Your task to perform on an android device: View the shopping cart on newegg.com. Add "asus zenbook" to the cart on newegg.com, then select checkout. Image 0: 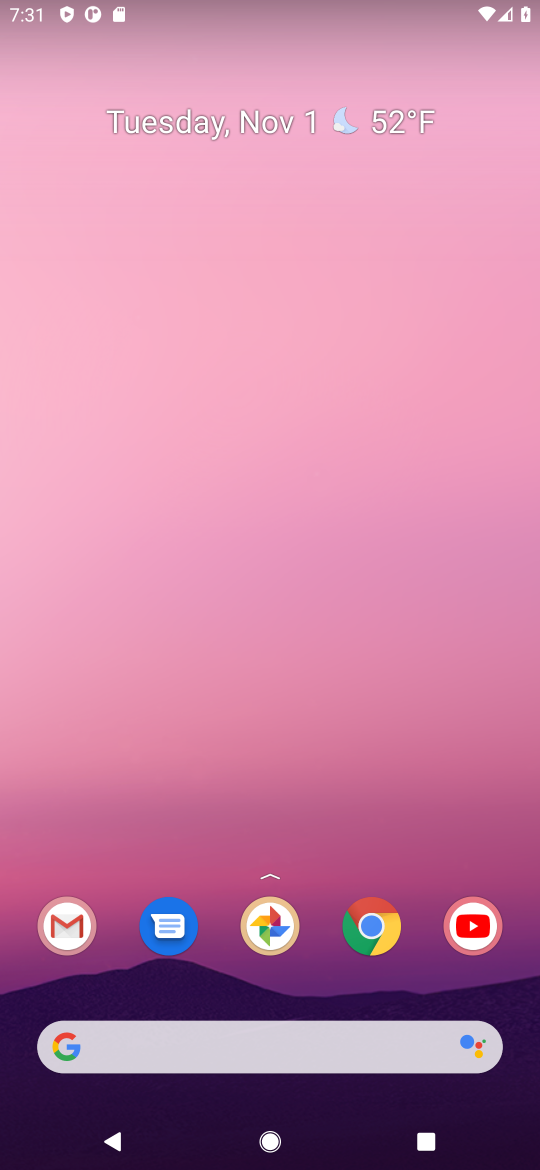
Step 0: click (366, 933)
Your task to perform on an android device: View the shopping cart on newegg.com. Add "asus zenbook" to the cart on newegg.com, then select checkout. Image 1: 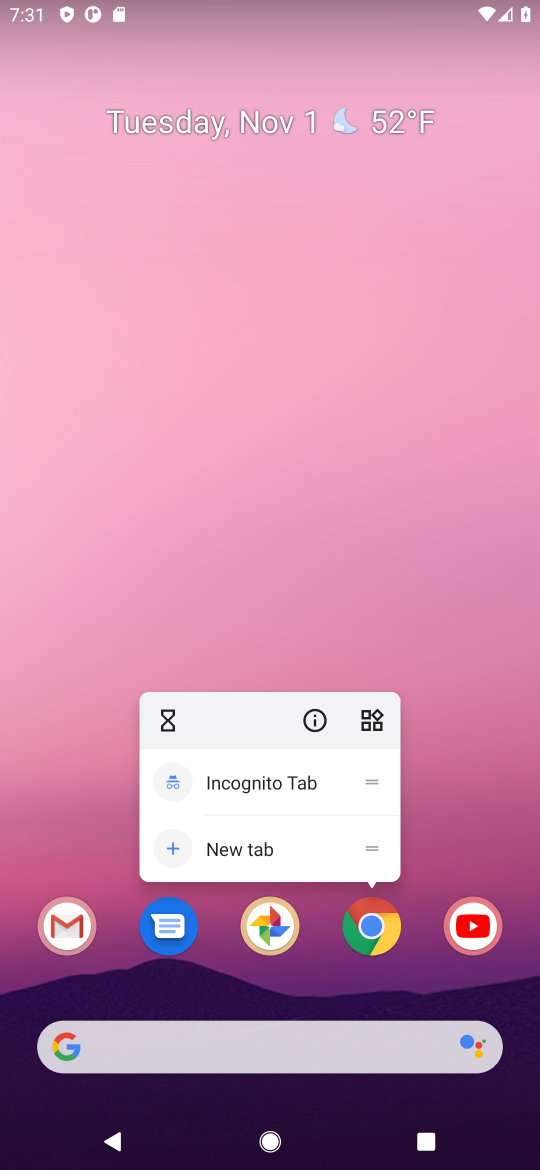
Step 1: click (366, 933)
Your task to perform on an android device: View the shopping cart on newegg.com. Add "asus zenbook" to the cart on newegg.com, then select checkout. Image 2: 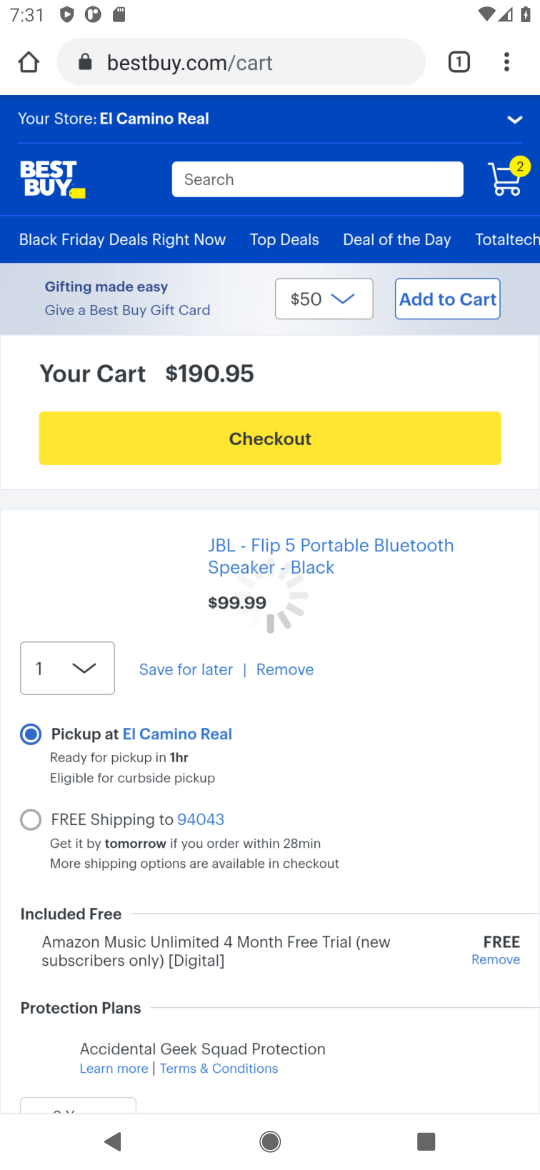
Step 2: click (366, 933)
Your task to perform on an android device: View the shopping cart on newegg.com. Add "asus zenbook" to the cart on newegg.com, then select checkout. Image 3: 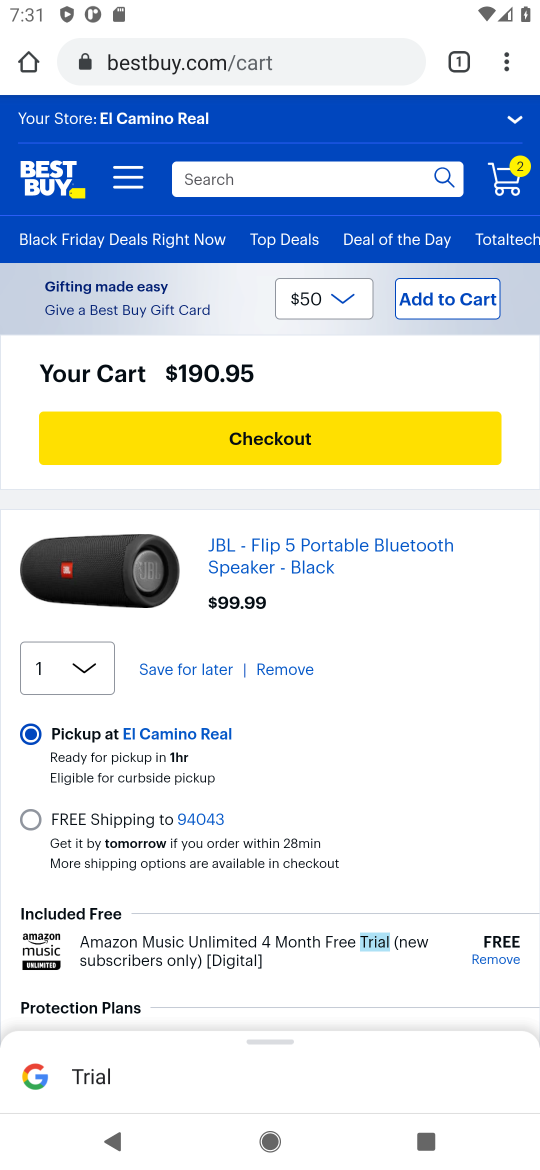
Step 3: click (120, 76)
Your task to perform on an android device: View the shopping cart on newegg.com. Add "asus zenbook" to the cart on newegg.com, then select checkout. Image 4: 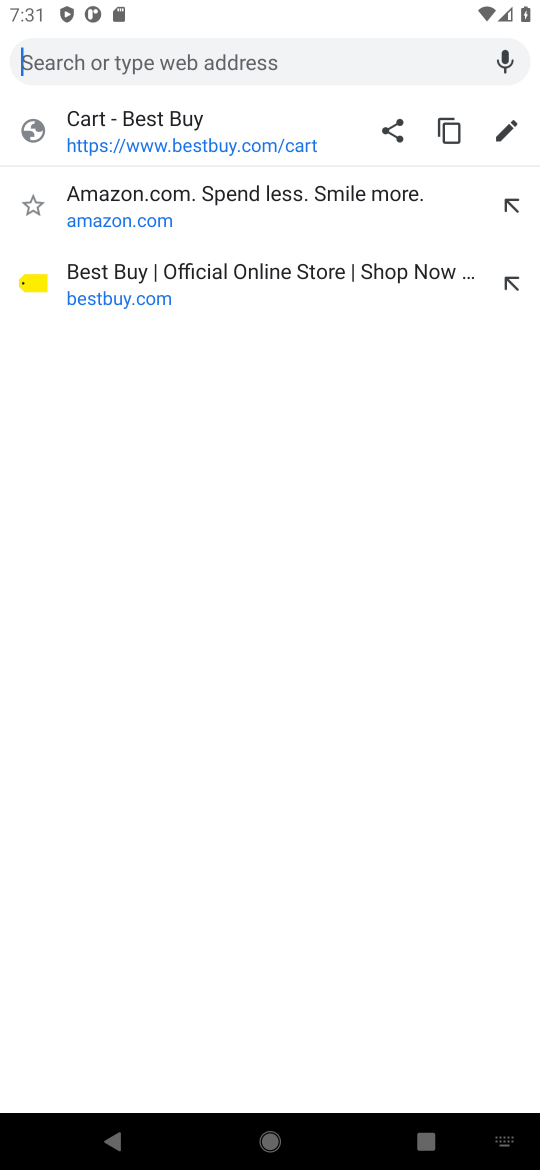
Step 4: type "newegg.com"
Your task to perform on an android device: View the shopping cart on newegg.com. Add "asus zenbook" to the cart on newegg.com, then select checkout. Image 5: 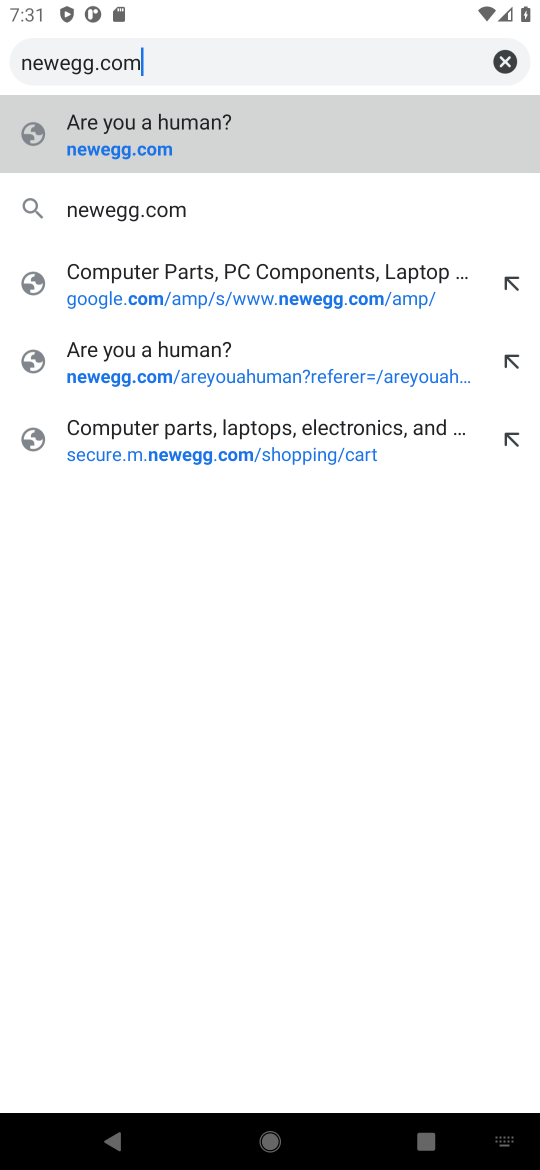
Step 5: click (501, 59)
Your task to perform on an android device: View the shopping cart on newegg.com. Add "asus zenbook" to the cart on newegg.com, then select checkout. Image 6: 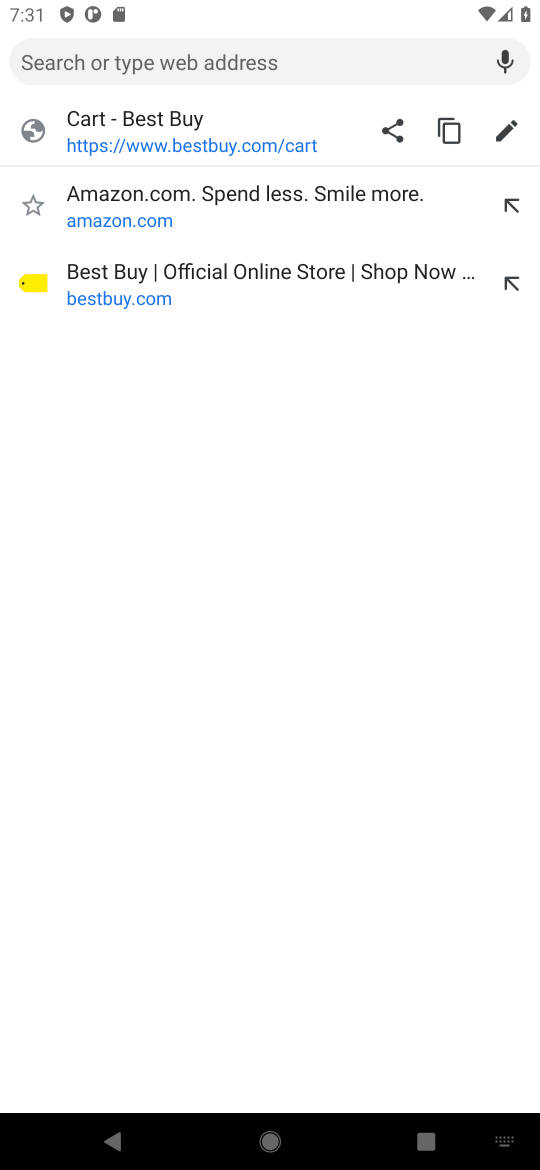
Step 6: type "newegg"
Your task to perform on an android device: View the shopping cart on newegg.com. Add "asus zenbook" to the cart on newegg.com, then select checkout. Image 7: 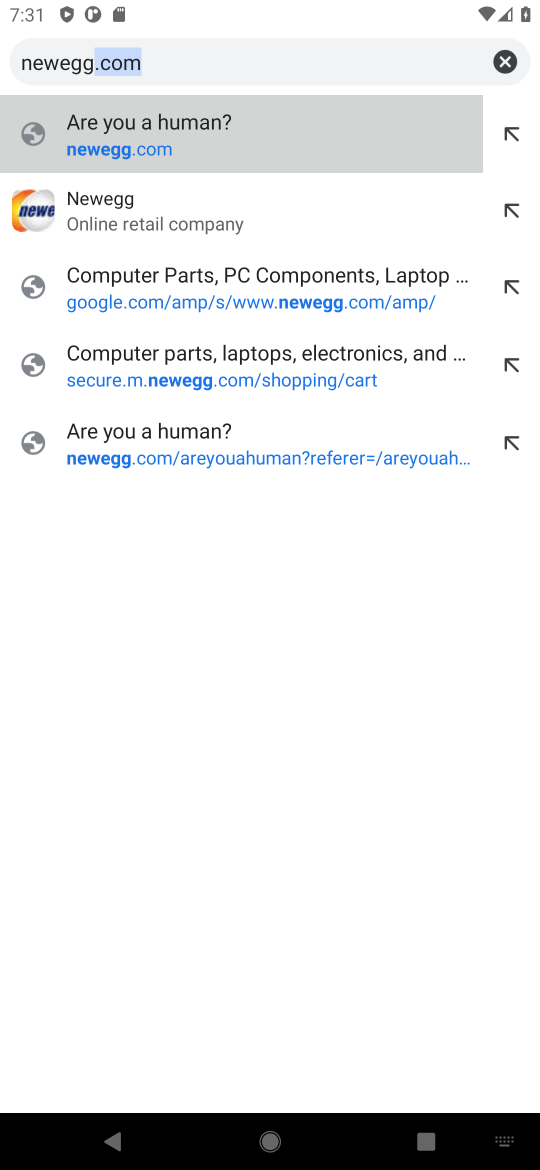
Step 7: type ""
Your task to perform on an android device: View the shopping cart on newegg.com. Add "asus zenbook" to the cart on newegg.com, then select checkout. Image 8: 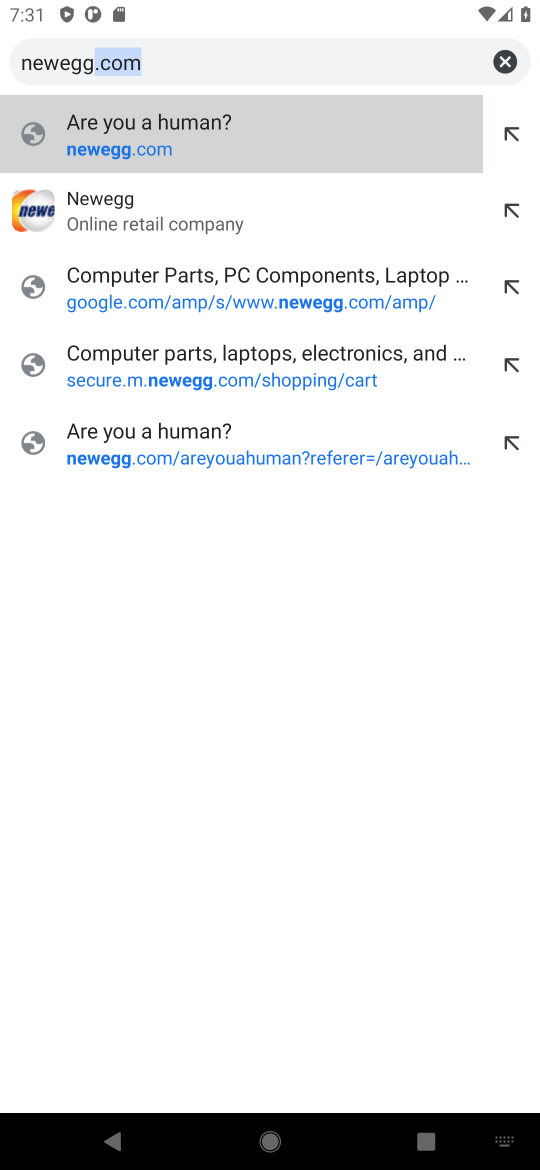
Step 8: click (97, 221)
Your task to perform on an android device: View the shopping cart on newegg.com. Add "asus zenbook" to the cart on newegg.com, then select checkout. Image 9: 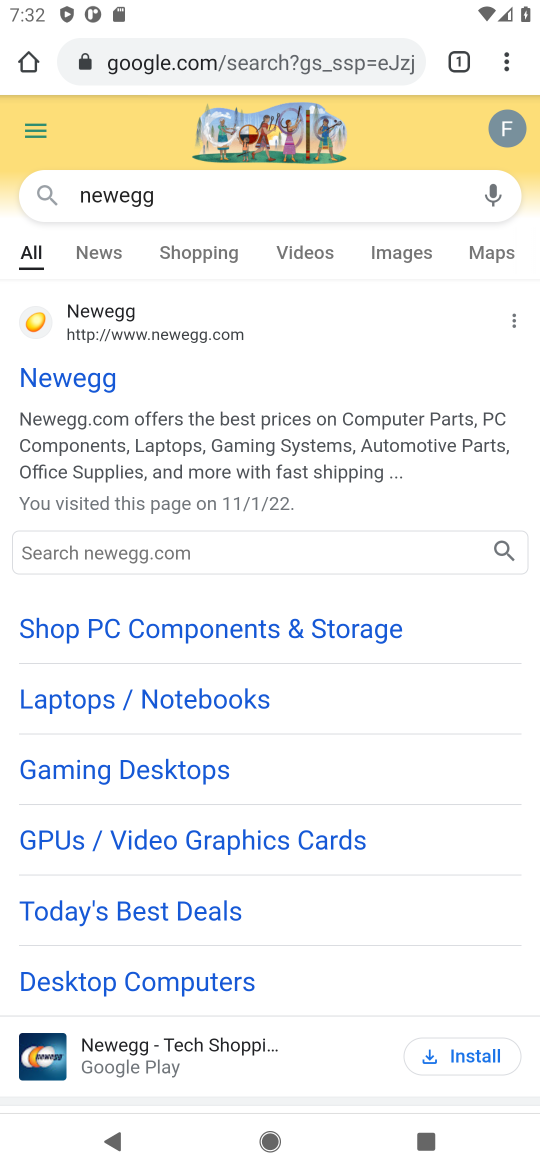
Step 9: drag from (202, 842) to (153, 236)
Your task to perform on an android device: View the shopping cart on newegg.com. Add "asus zenbook" to the cart on newegg.com, then select checkout. Image 10: 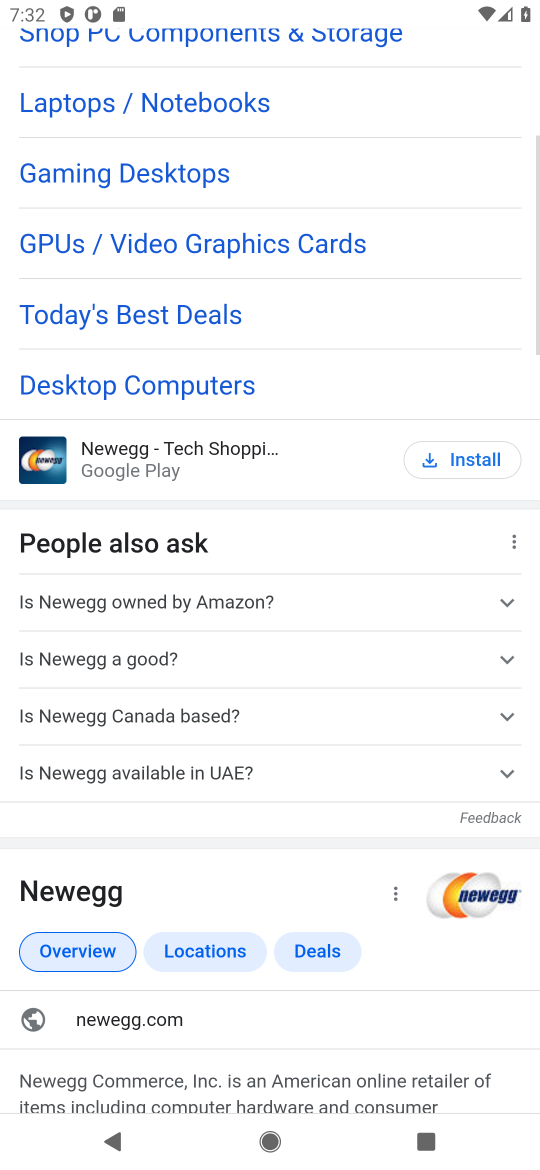
Step 10: drag from (198, 992) to (203, 541)
Your task to perform on an android device: View the shopping cart on newegg.com. Add "asus zenbook" to the cart on newegg.com, then select checkout. Image 11: 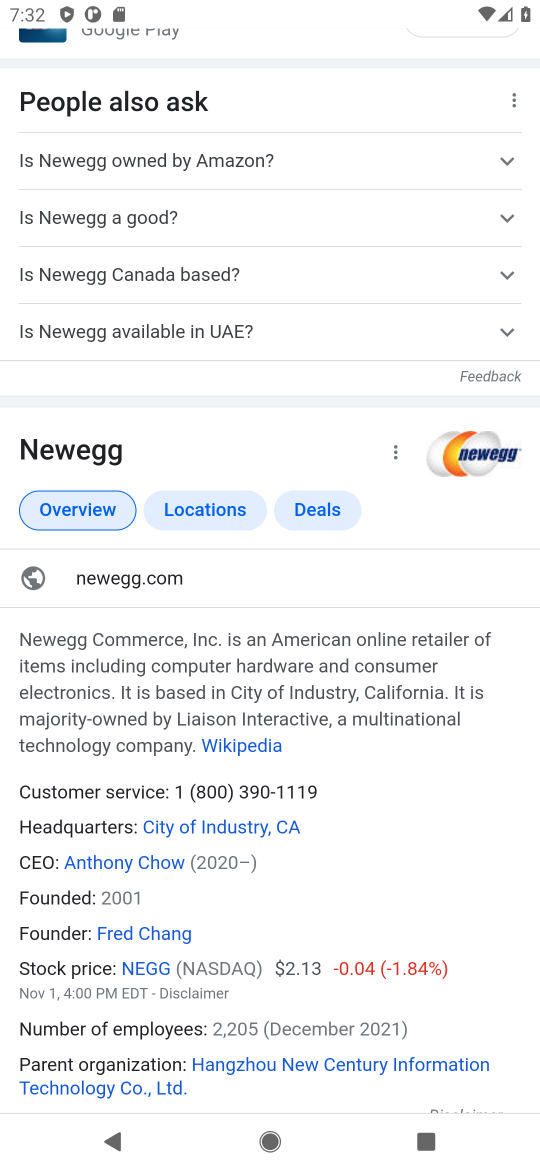
Step 11: click (59, 443)
Your task to perform on an android device: View the shopping cart on newegg.com. Add "asus zenbook" to the cart on newegg.com, then select checkout. Image 12: 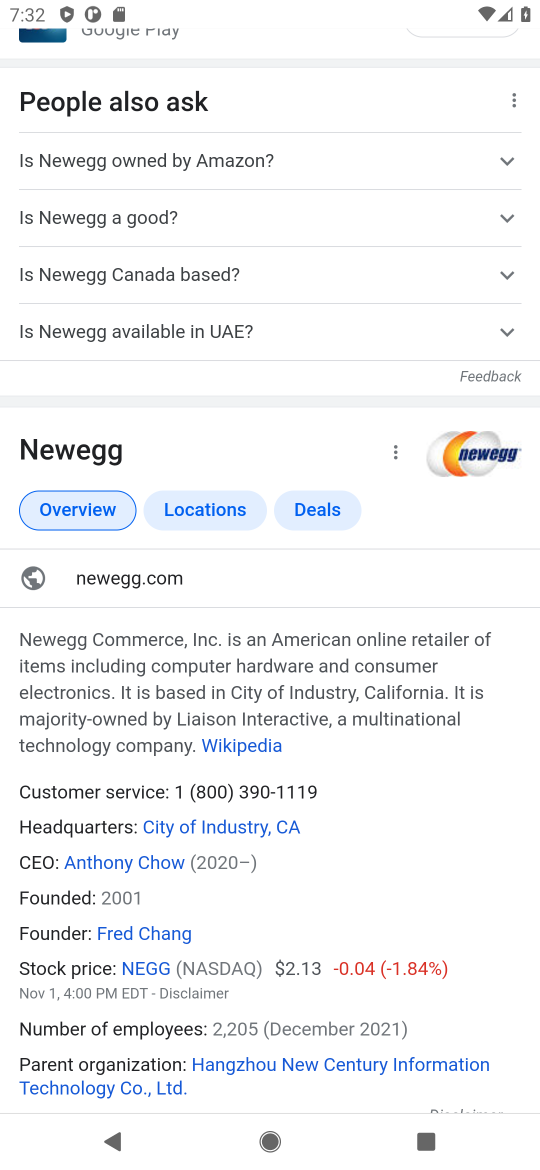
Step 12: drag from (201, 382) to (182, 798)
Your task to perform on an android device: View the shopping cart on newegg.com. Add "asus zenbook" to the cart on newegg.com, then select checkout. Image 13: 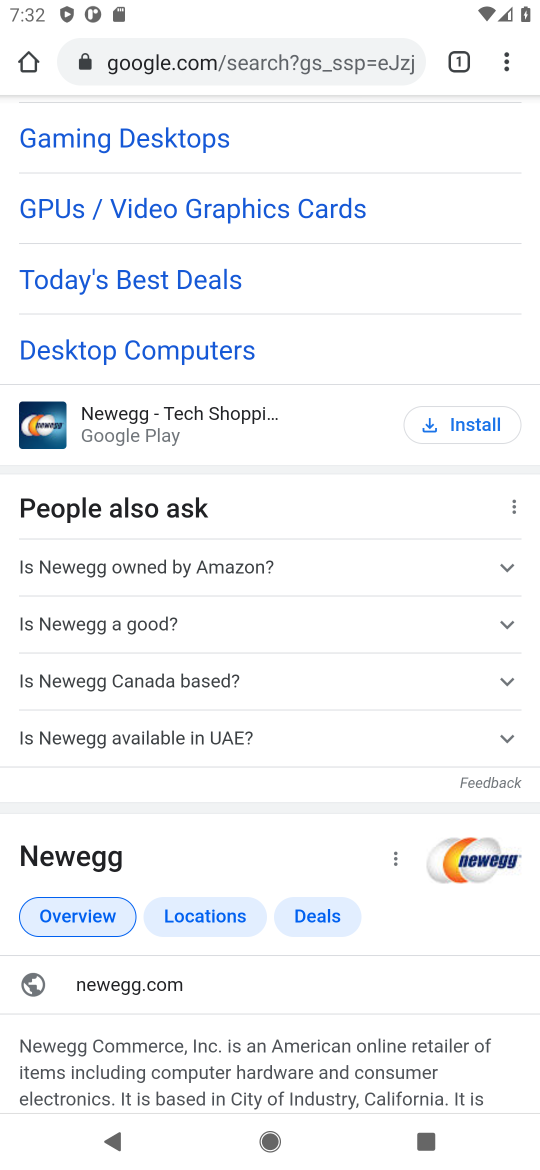
Step 13: drag from (155, 389) to (154, 883)
Your task to perform on an android device: View the shopping cart on newegg.com. Add "asus zenbook" to the cart on newegg.com, then select checkout. Image 14: 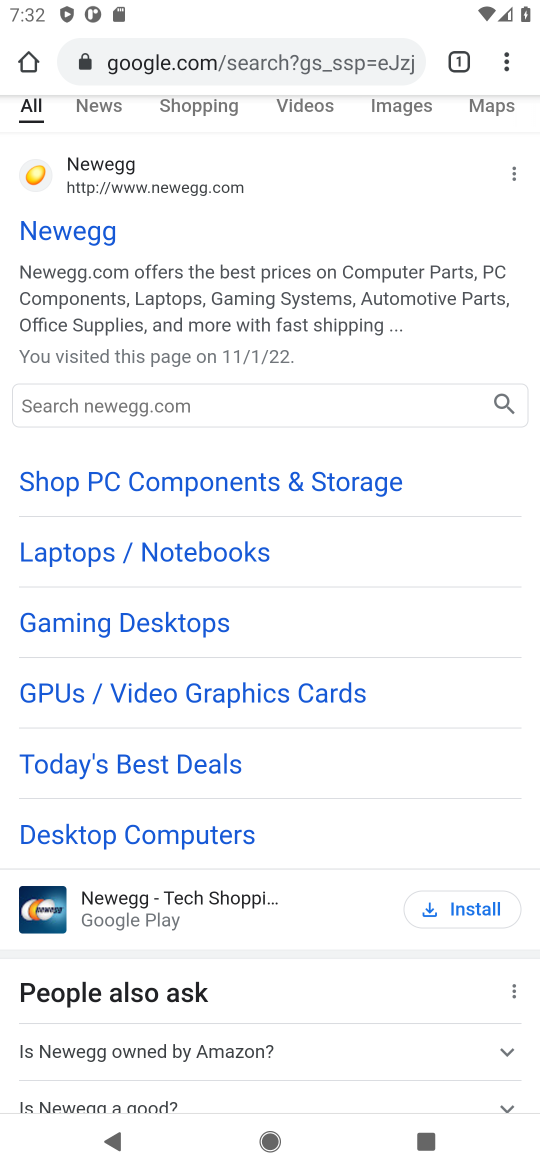
Step 14: click (209, 472)
Your task to perform on an android device: View the shopping cart on newegg.com. Add "asus zenbook" to the cart on newegg.com, then select checkout. Image 15: 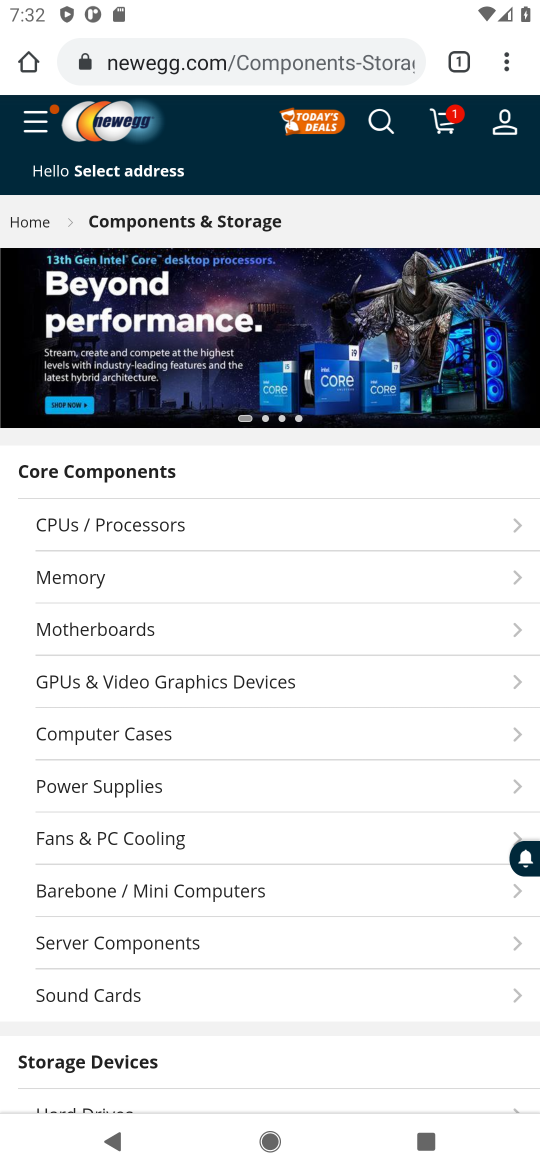
Step 15: click (138, 206)
Your task to perform on an android device: View the shopping cart on newegg.com. Add "asus zenbook" to the cart on newegg.com, then select checkout. Image 16: 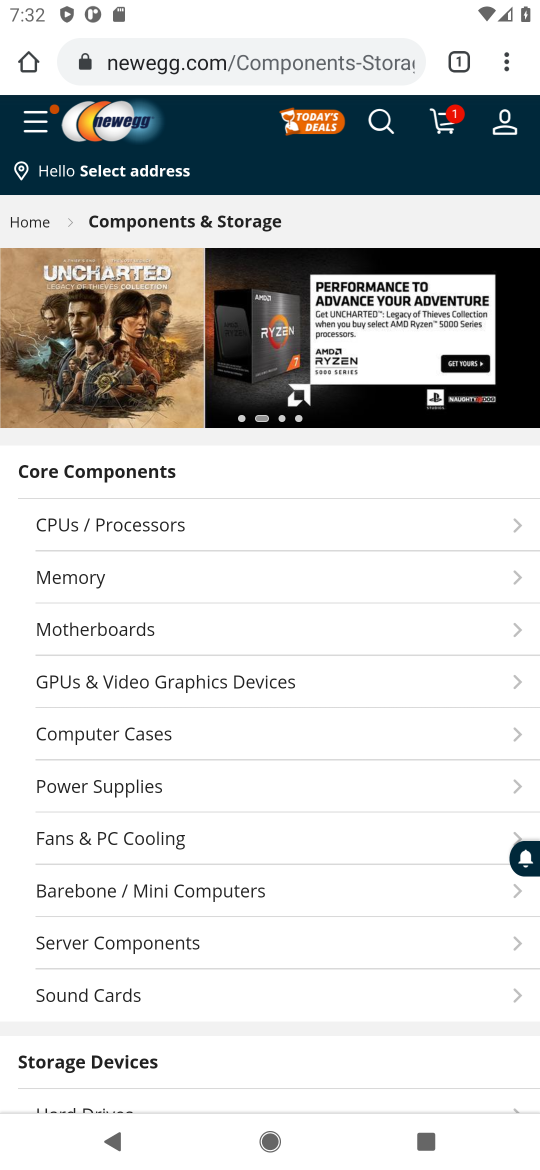
Step 16: click (384, 125)
Your task to perform on an android device: View the shopping cart on newegg.com. Add "asus zenbook" to the cart on newegg.com, then select checkout. Image 17: 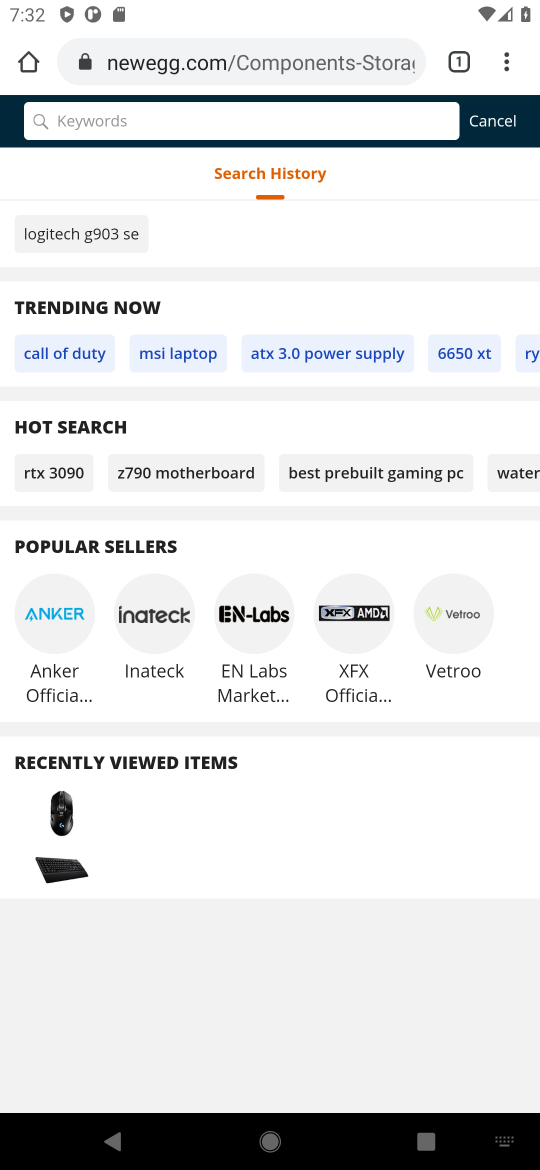
Step 17: type "asus zenbook"
Your task to perform on an android device: View the shopping cart on newegg.com. Add "asus zenbook" to the cart on newegg.com, then select checkout. Image 18: 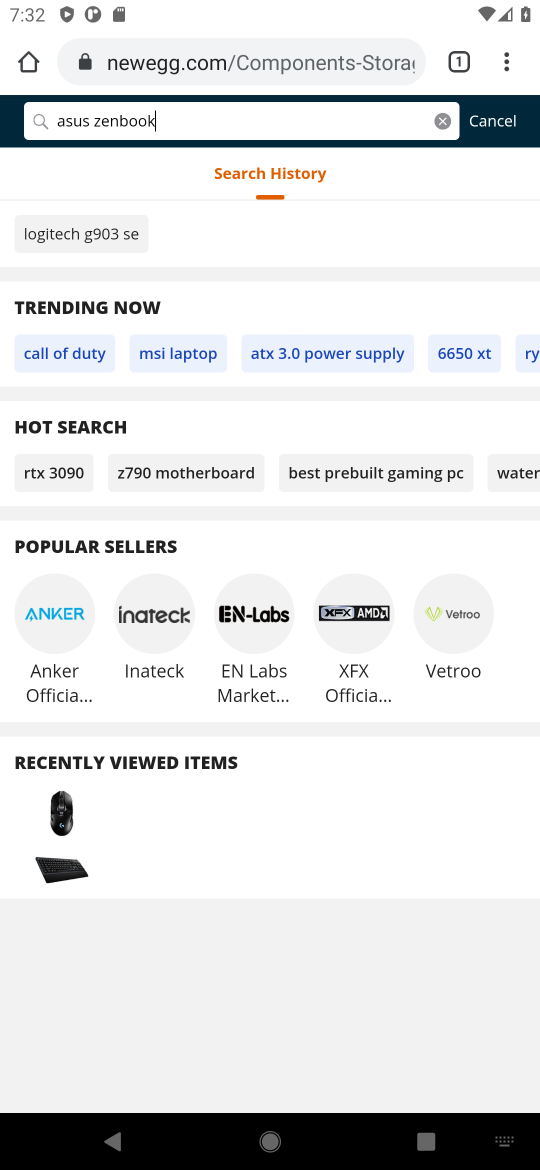
Step 18: type ""
Your task to perform on an android device: View the shopping cart on newegg.com. Add "asus zenbook" to the cart on newegg.com, then select checkout. Image 19: 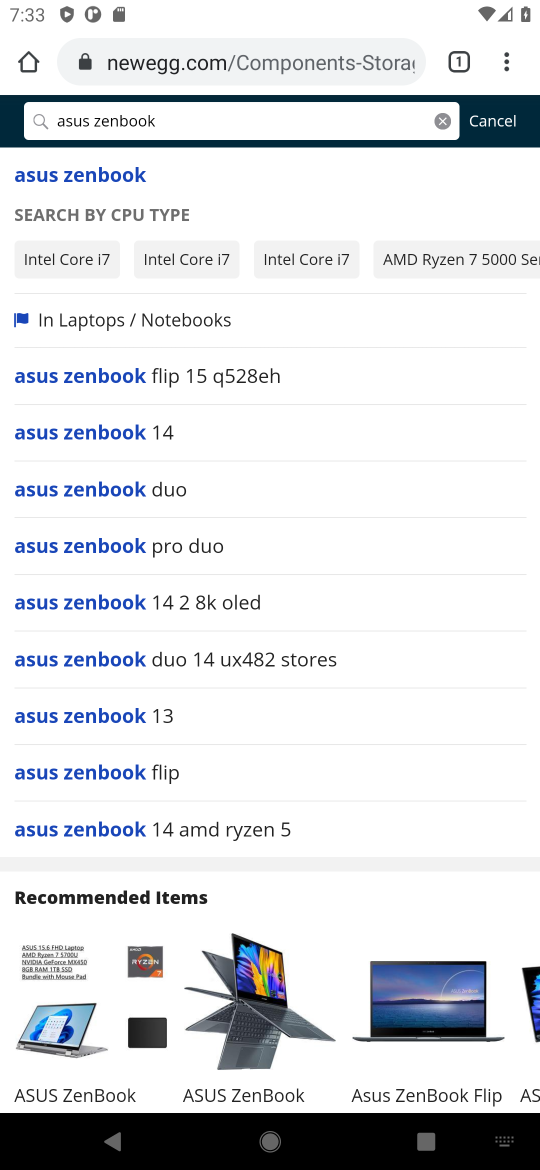
Step 19: click (99, 432)
Your task to perform on an android device: View the shopping cart on newegg.com. Add "asus zenbook" to the cart on newegg.com, then select checkout. Image 20: 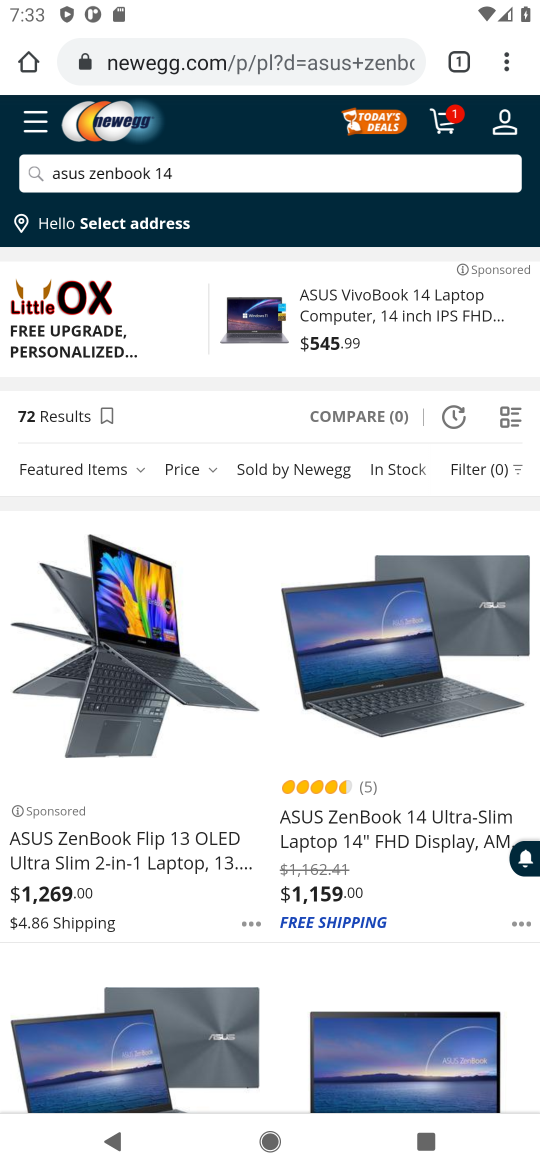
Step 20: click (130, 652)
Your task to perform on an android device: View the shopping cart on newegg.com. Add "asus zenbook" to the cart on newegg.com, then select checkout. Image 21: 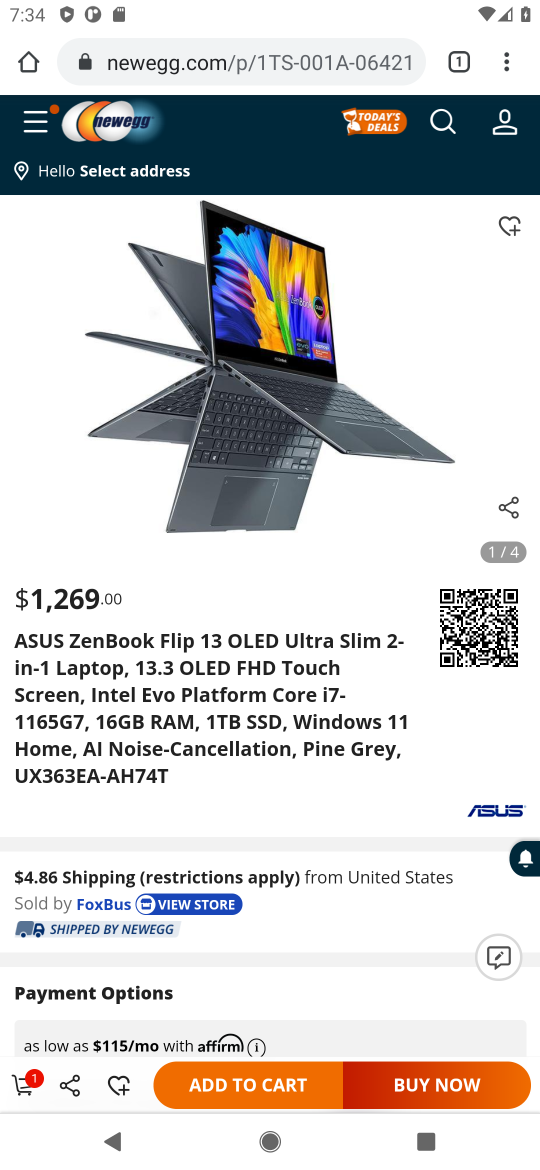
Step 21: click (238, 1090)
Your task to perform on an android device: View the shopping cart on newegg.com. Add "asus zenbook" to the cart on newegg.com, then select checkout. Image 22: 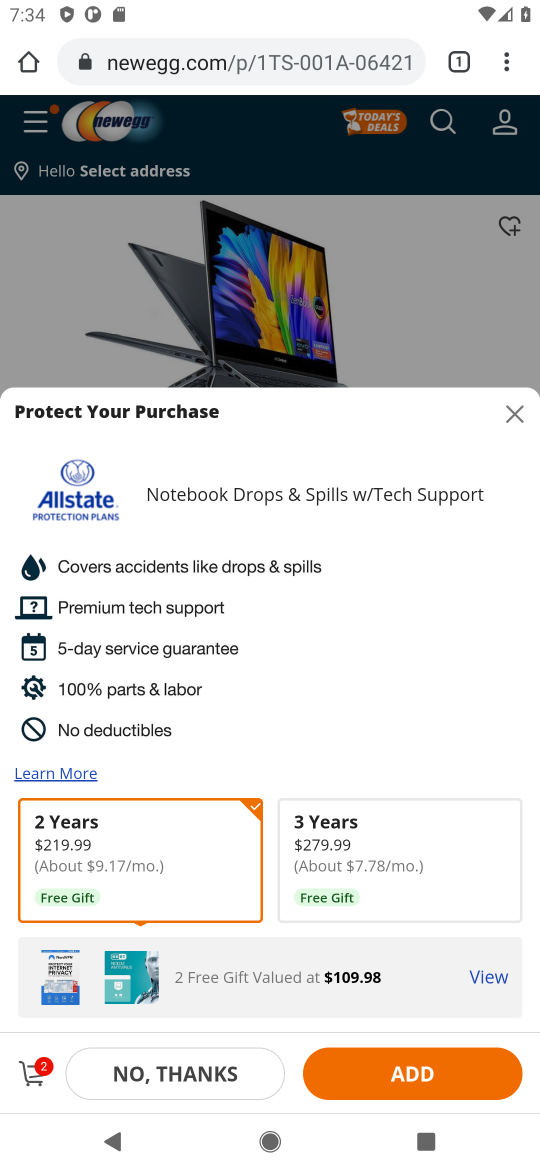
Step 22: click (32, 1067)
Your task to perform on an android device: View the shopping cart on newegg.com. Add "asus zenbook" to the cart on newegg.com, then select checkout. Image 23: 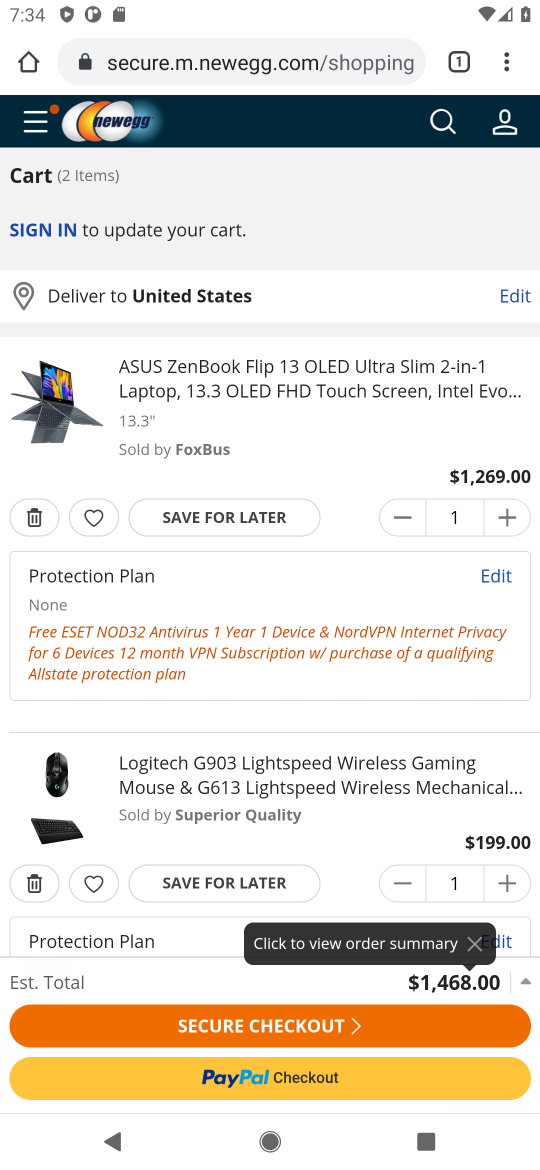
Step 23: click (234, 1034)
Your task to perform on an android device: View the shopping cart on newegg.com. Add "asus zenbook" to the cart on newegg.com, then select checkout. Image 24: 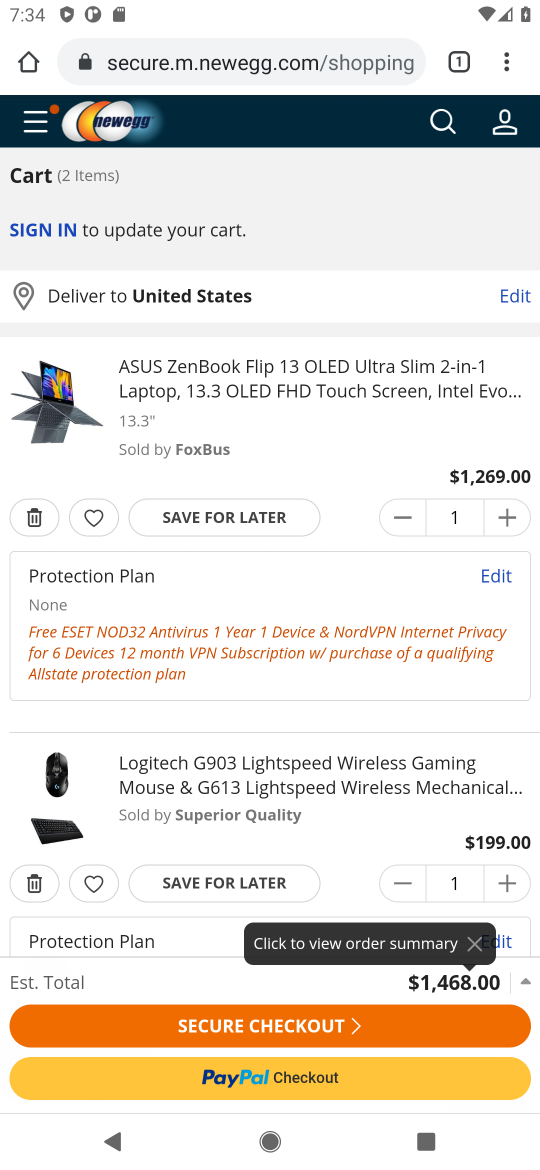
Step 24: click (296, 1023)
Your task to perform on an android device: View the shopping cart on newegg.com. Add "asus zenbook" to the cart on newegg.com, then select checkout. Image 25: 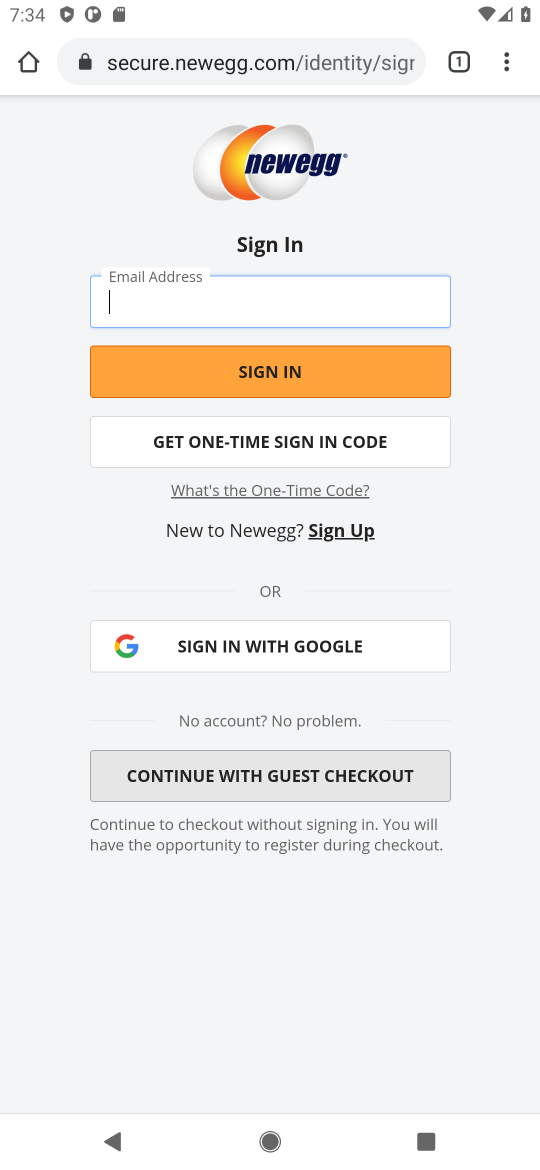
Step 25: task complete